Your task to perform on an android device: turn off picture-in-picture Image 0: 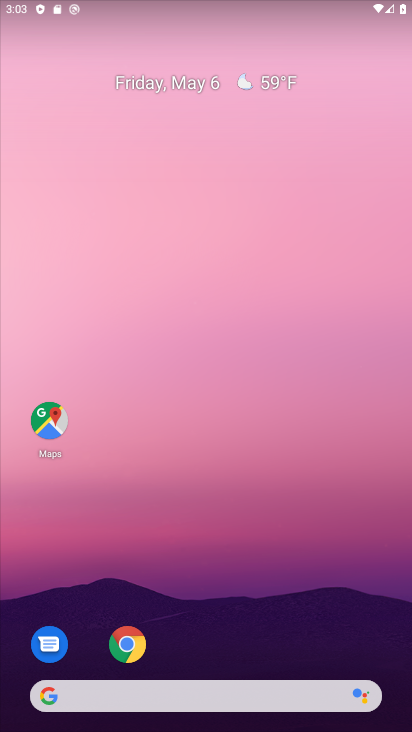
Step 0: click (126, 646)
Your task to perform on an android device: turn off picture-in-picture Image 1: 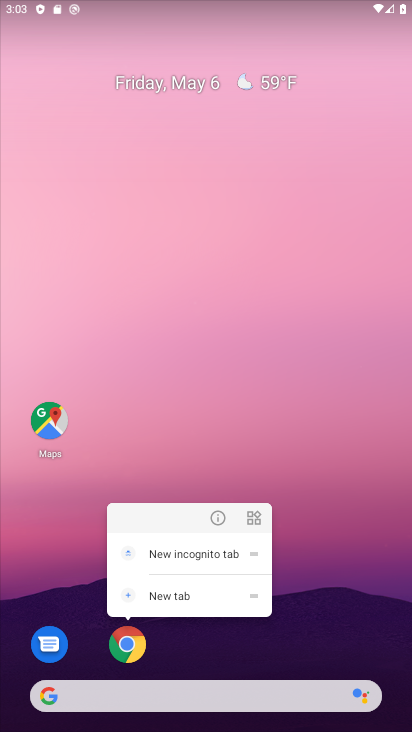
Step 1: click (215, 514)
Your task to perform on an android device: turn off picture-in-picture Image 2: 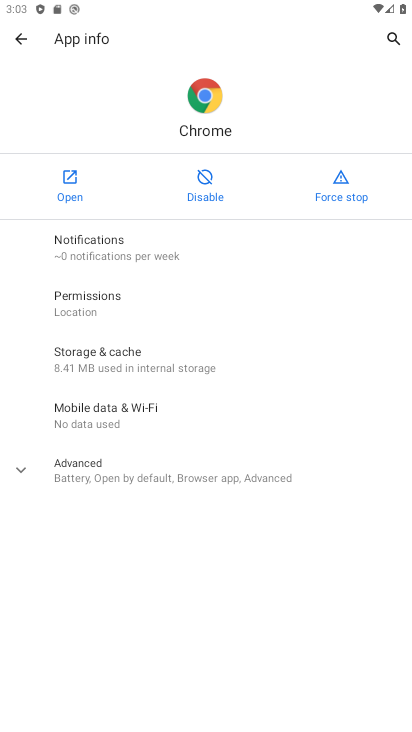
Step 2: click (77, 472)
Your task to perform on an android device: turn off picture-in-picture Image 3: 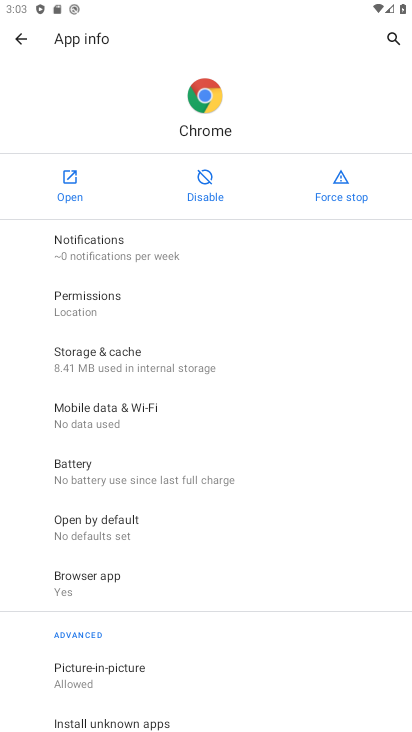
Step 3: drag from (154, 594) to (201, 520)
Your task to perform on an android device: turn off picture-in-picture Image 4: 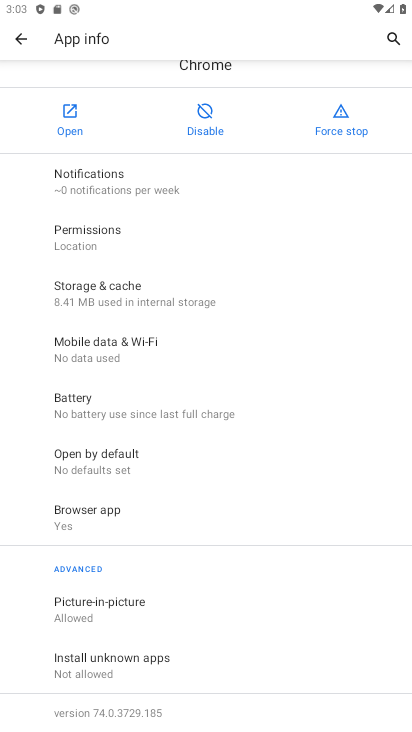
Step 4: click (128, 602)
Your task to perform on an android device: turn off picture-in-picture Image 5: 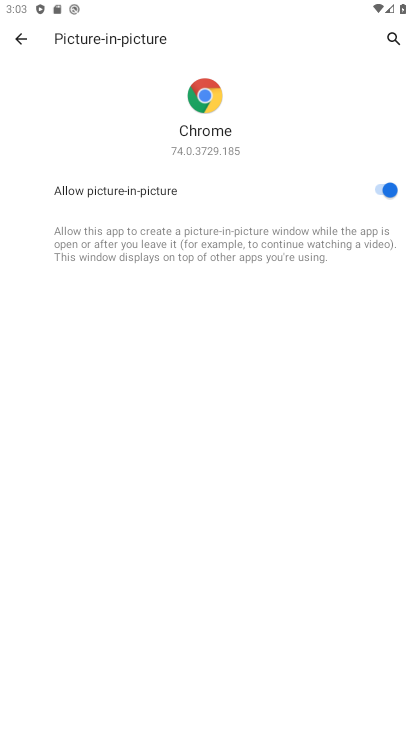
Step 5: click (395, 186)
Your task to perform on an android device: turn off picture-in-picture Image 6: 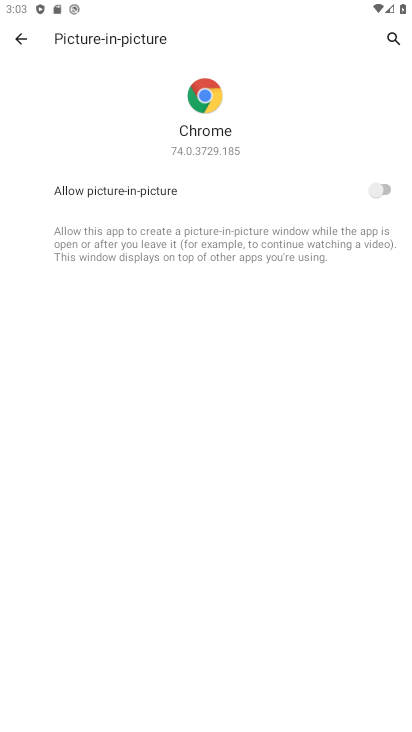
Step 6: task complete